Your task to perform on an android device: turn smart compose on in the gmail app Image 0: 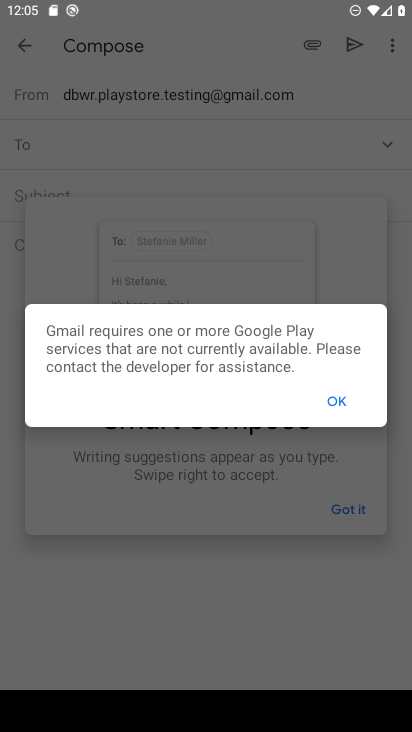
Step 0: click (338, 399)
Your task to perform on an android device: turn smart compose on in the gmail app Image 1: 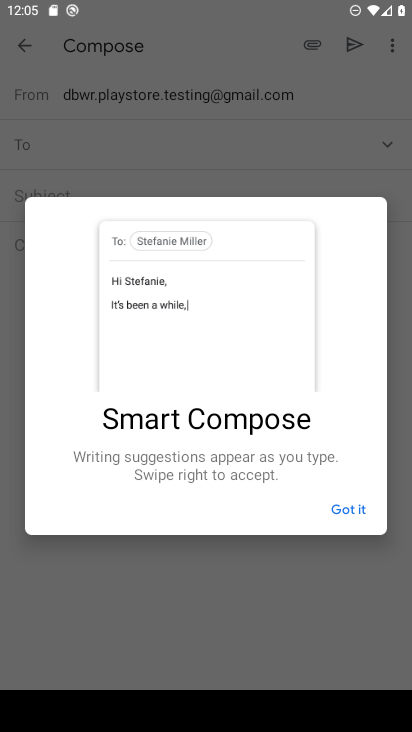
Step 1: press back button
Your task to perform on an android device: turn smart compose on in the gmail app Image 2: 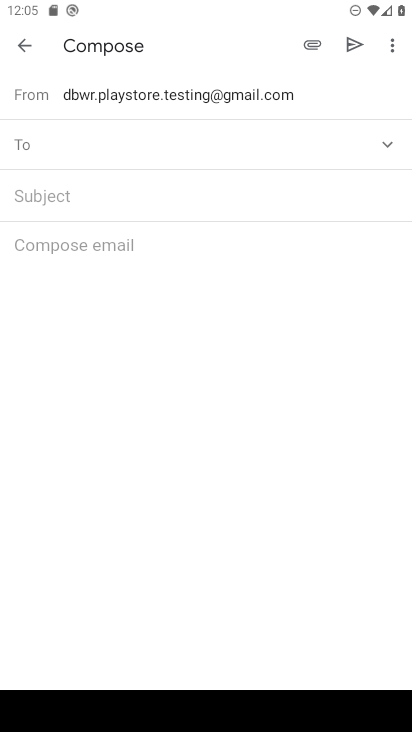
Step 2: click (19, 39)
Your task to perform on an android device: turn smart compose on in the gmail app Image 3: 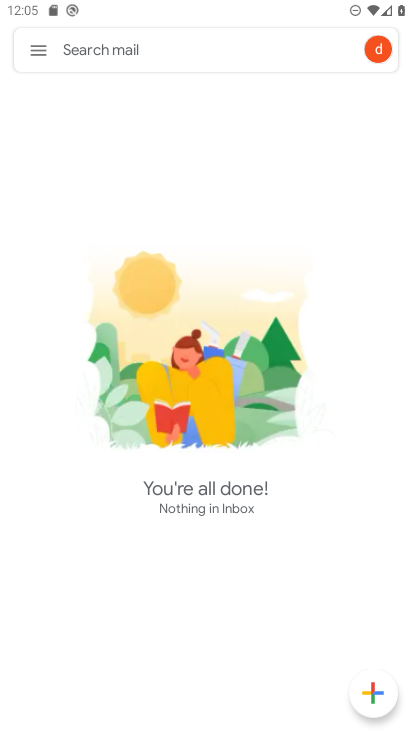
Step 3: drag from (213, 537) to (202, 96)
Your task to perform on an android device: turn smart compose on in the gmail app Image 4: 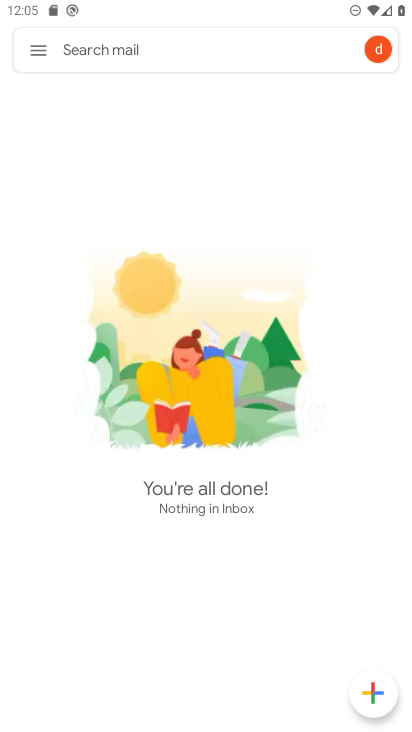
Step 4: drag from (216, 558) to (185, 134)
Your task to perform on an android device: turn smart compose on in the gmail app Image 5: 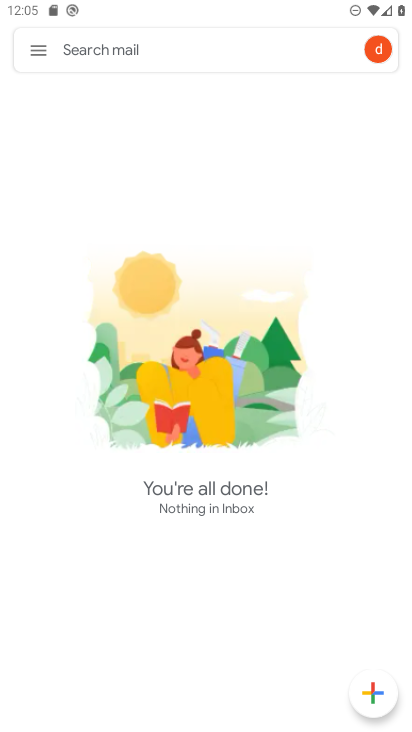
Step 5: drag from (269, 534) to (224, 147)
Your task to perform on an android device: turn smart compose on in the gmail app Image 6: 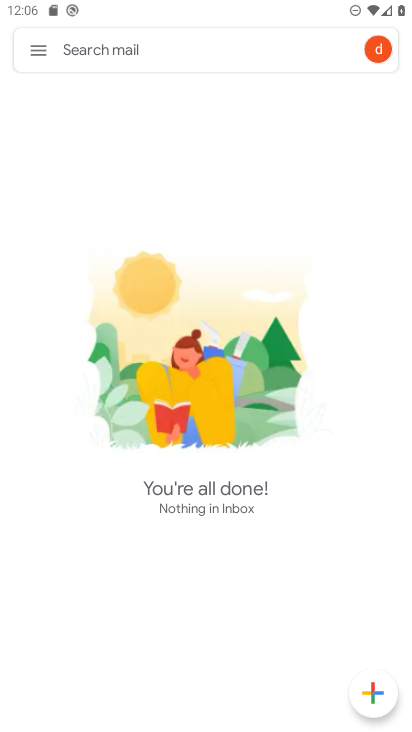
Step 6: drag from (229, 531) to (204, 127)
Your task to perform on an android device: turn smart compose on in the gmail app Image 7: 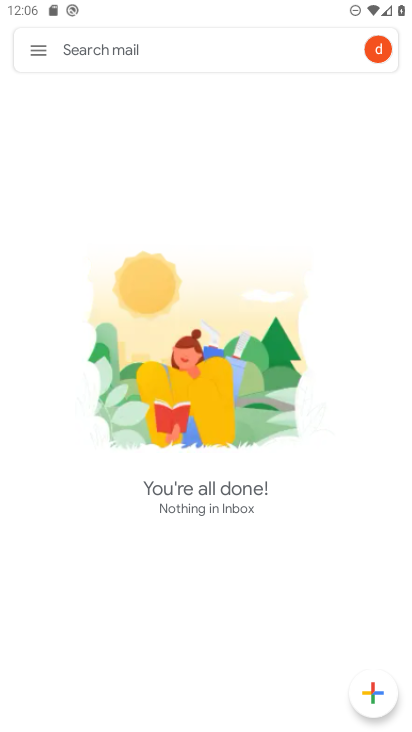
Step 7: click (39, 55)
Your task to perform on an android device: turn smart compose on in the gmail app Image 8: 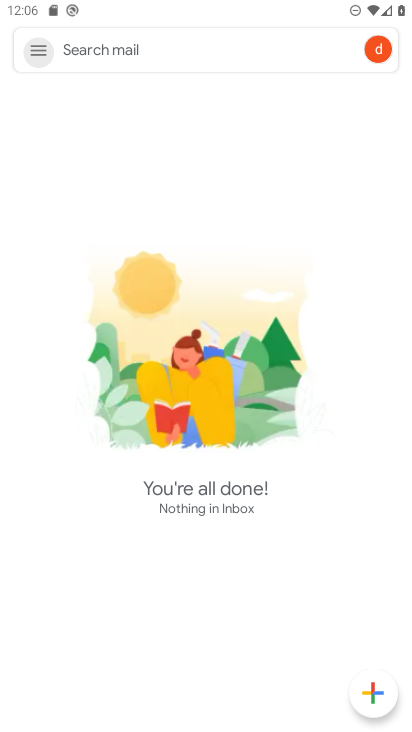
Step 8: click (34, 50)
Your task to perform on an android device: turn smart compose on in the gmail app Image 9: 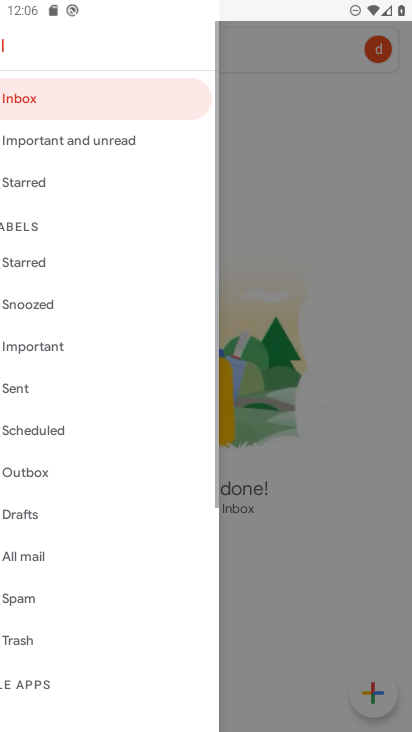
Step 9: click (34, 50)
Your task to perform on an android device: turn smart compose on in the gmail app Image 10: 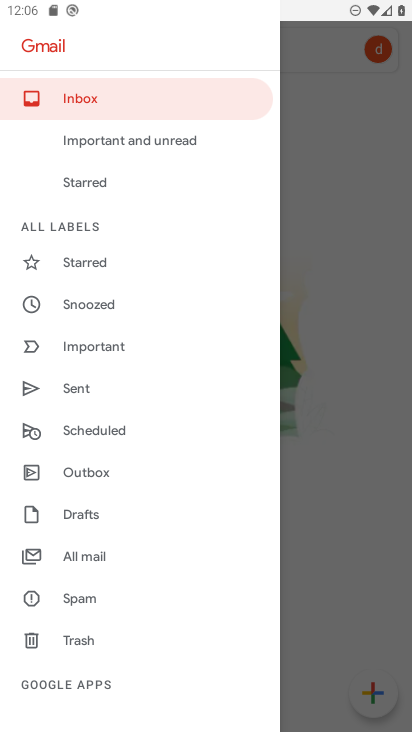
Step 10: drag from (101, 603) to (73, 304)
Your task to perform on an android device: turn smart compose on in the gmail app Image 11: 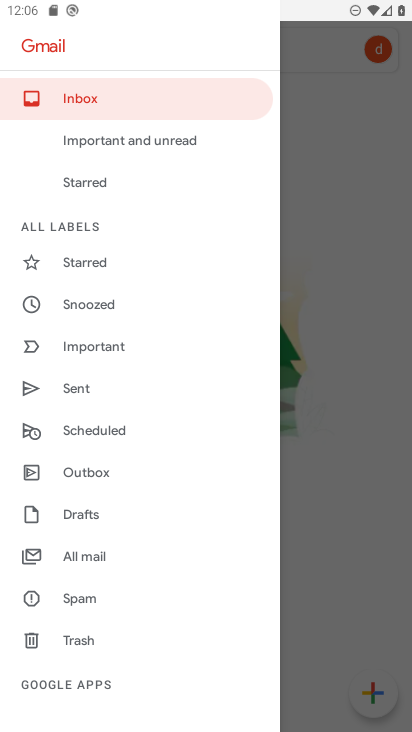
Step 11: drag from (141, 622) to (102, 208)
Your task to perform on an android device: turn smart compose on in the gmail app Image 12: 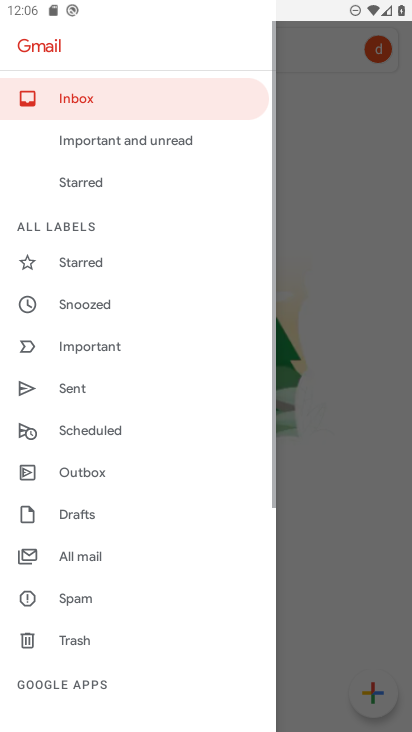
Step 12: drag from (116, 450) to (116, 182)
Your task to perform on an android device: turn smart compose on in the gmail app Image 13: 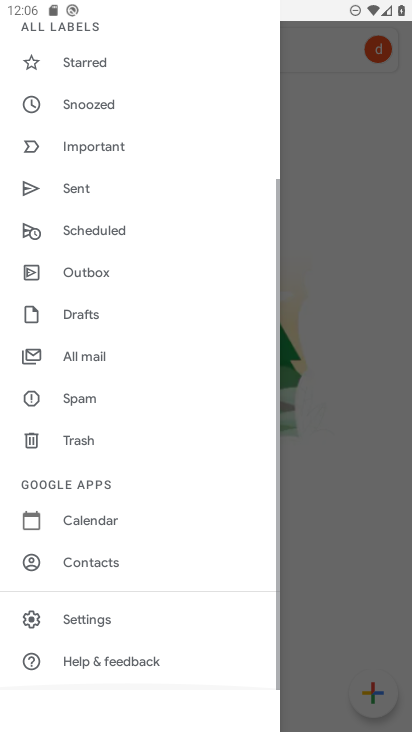
Step 13: drag from (62, 426) to (65, 132)
Your task to perform on an android device: turn smart compose on in the gmail app Image 14: 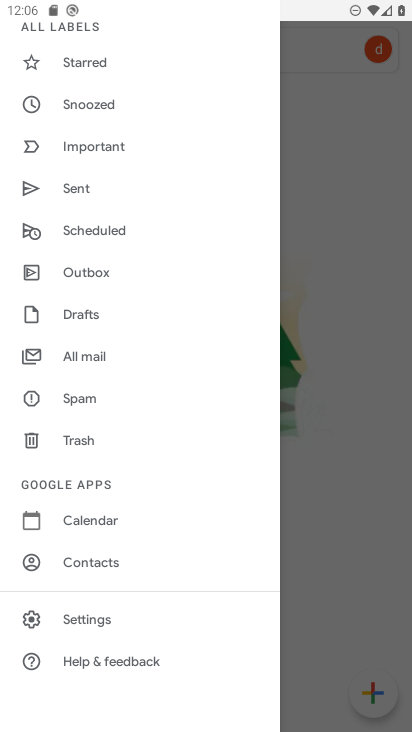
Step 14: click (89, 607)
Your task to perform on an android device: turn smart compose on in the gmail app Image 15: 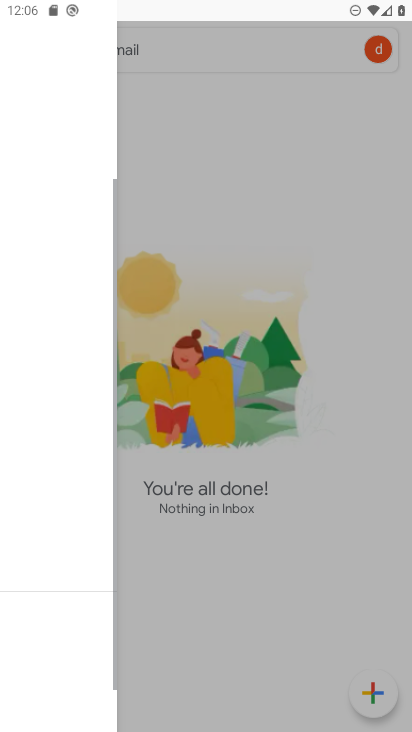
Step 15: click (90, 612)
Your task to perform on an android device: turn smart compose on in the gmail app Image 16: 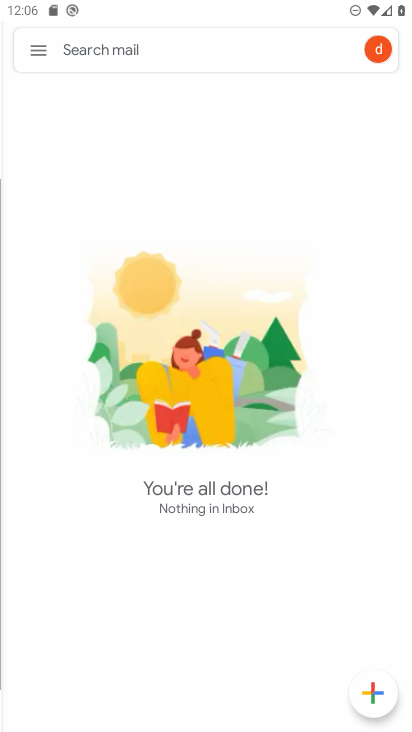
Step 16: click (90, 612)
Your task to perform on an android device: turn smart compose on in the gmail app Image 17: 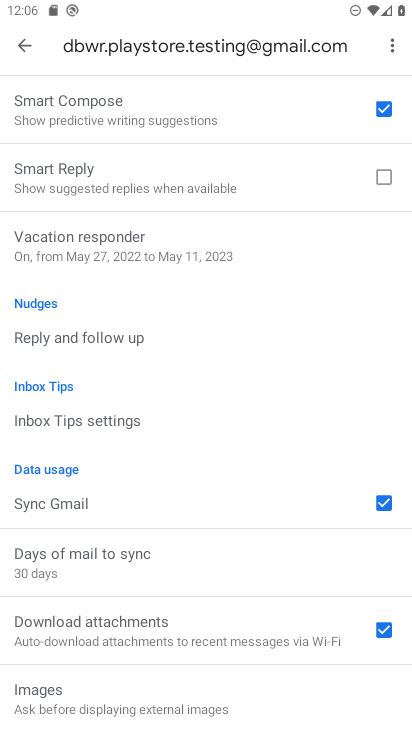
Step 17: task complete